Your task to perform on an android device: Toggle the flashlight Image 0: 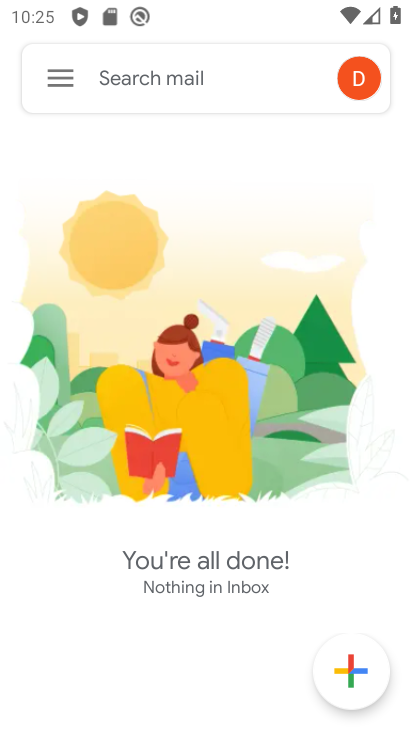
Step 0: press back button
Your task to perform on an android device: Toggle the flashlight Image 1: 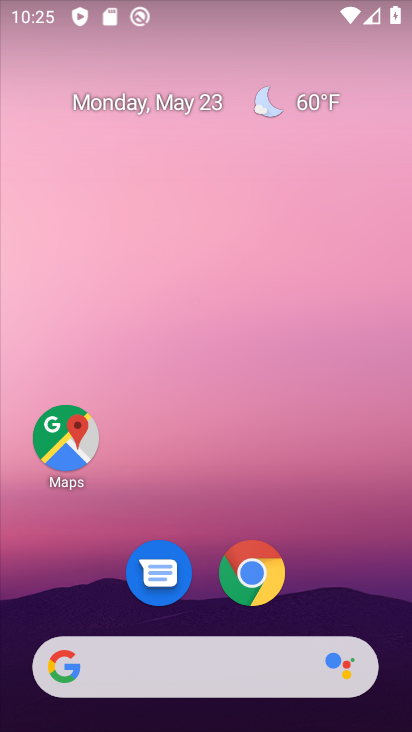
Step 1: drag from (311, 430) to (244, 12)
Your task to perform on an android device: Toggle the flashlight Image 2: 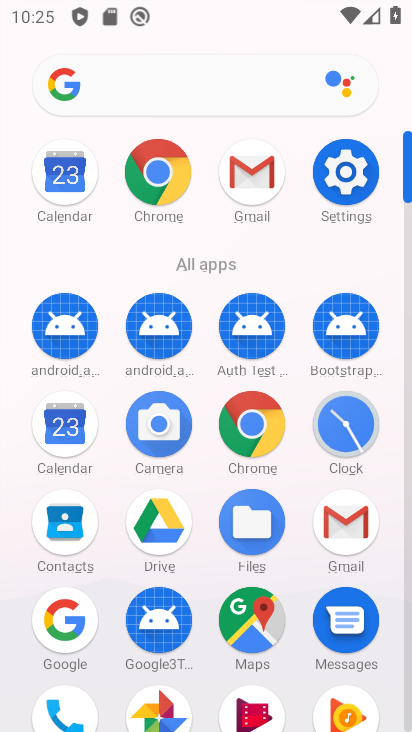
Step 2: drag from (5, 577) to (19, 224)
Your task to perform on an android device: Toggle the flashlight Image 3: 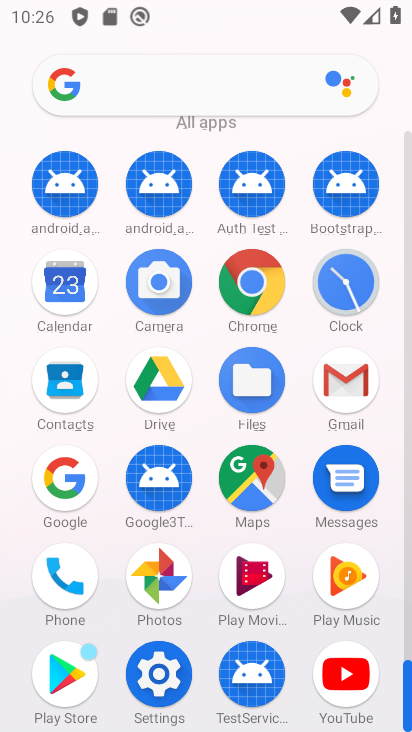
Step 3: drag from (16, 466) to (13, 232)
Your task to perform on an android device: Toggle the flashlight Image 4: 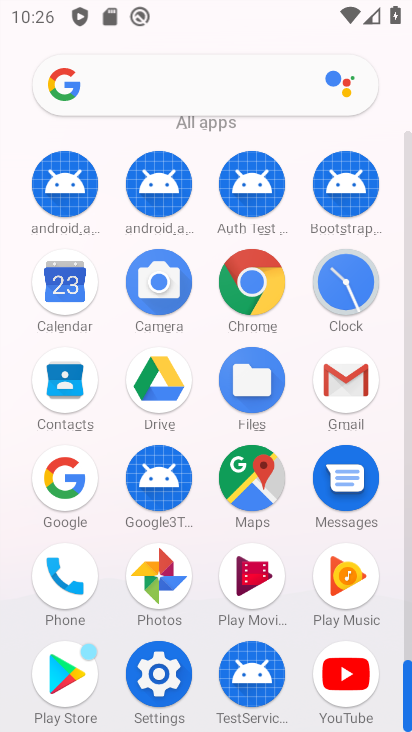
Step 4: click (163, 665)
Your task to perform on an android device: Toggle the flashlight Image 5: 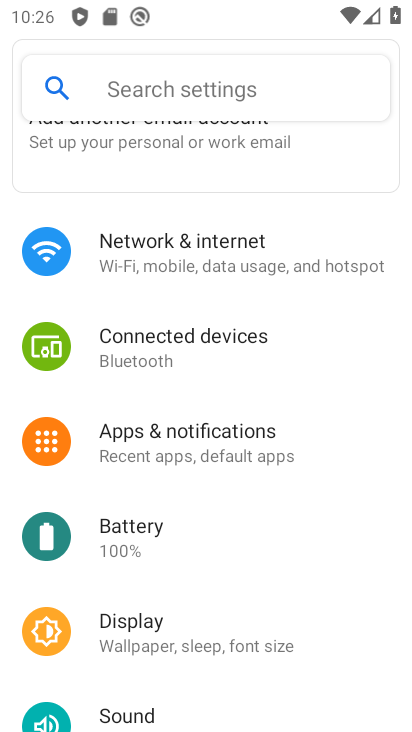
Step 5: click (235, 266)
Your task to perform on an android device: Toggle the flashlight Image 6: 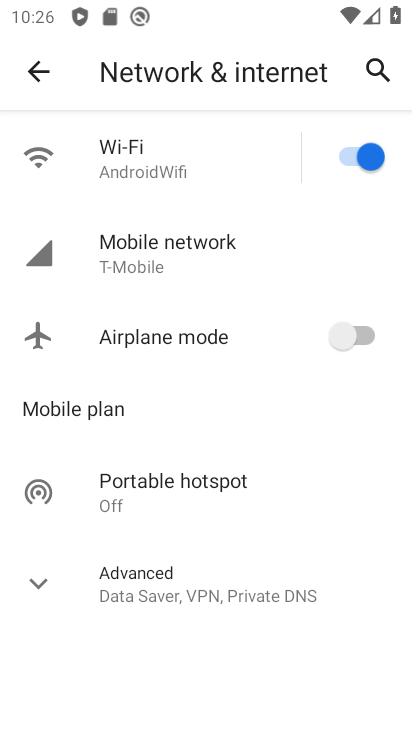
Step 6: click (59, 582)
Your task to perform on an android device: Toggle the flashlight Image 7: 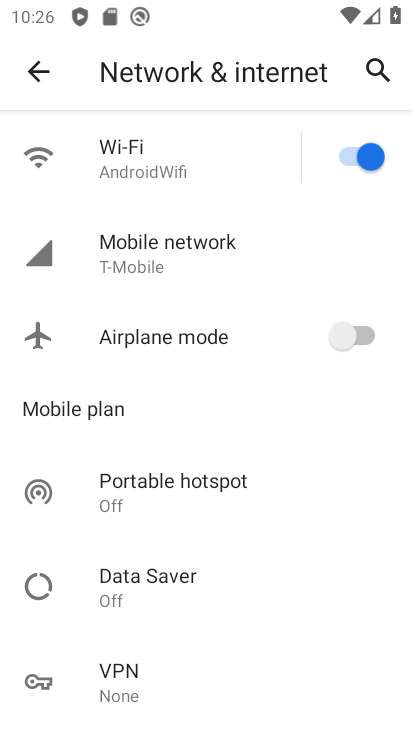
Step 7: task complete